Your task to perform on an android device: open a bookmark in the chrome app Image 0: 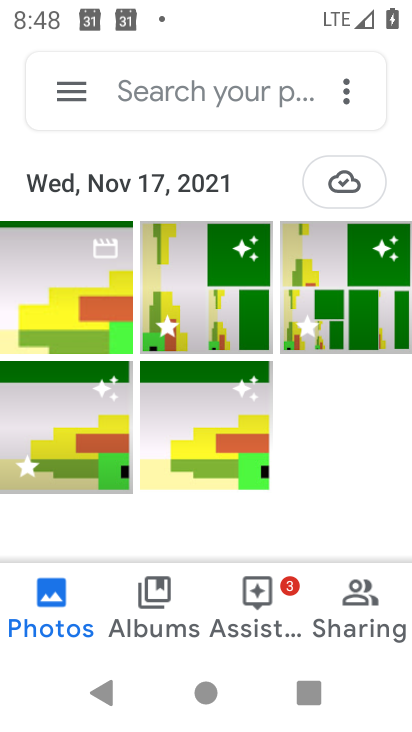
Step 0: press home button
Your task to perform on an android device: open a bookmark in the chrome app Image 1: 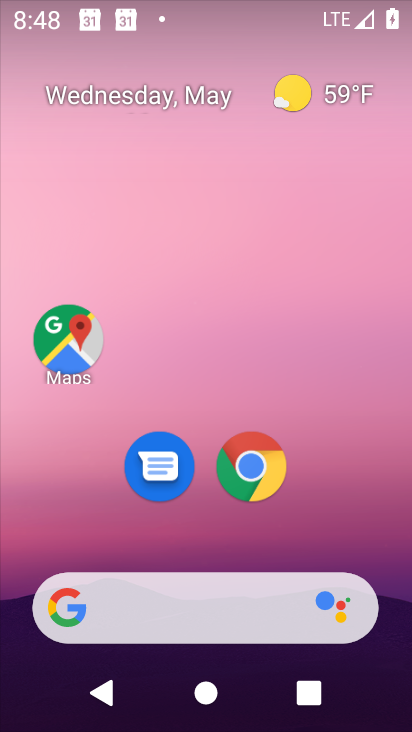
Step 1: drag from (312, 514) to (314, 258)
Your task to perform on an android device: open a bookmark in the chrome app Image 2: 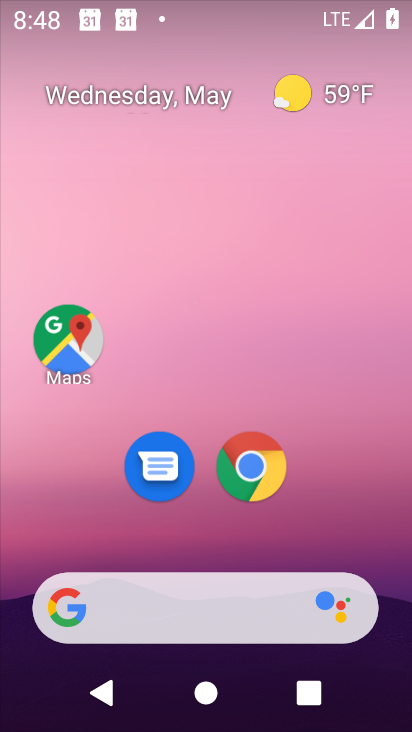
Step 2: click (253, 460)
Your task to perform on an android device: open a bookmark in the chrome app Image 3: 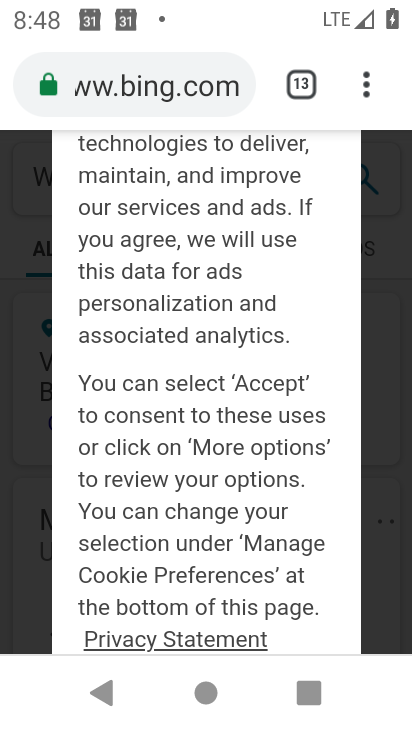
Step 3: click (346, 78)
Your task to perform on an android device: open a bookmark in the chrome app Image 4: 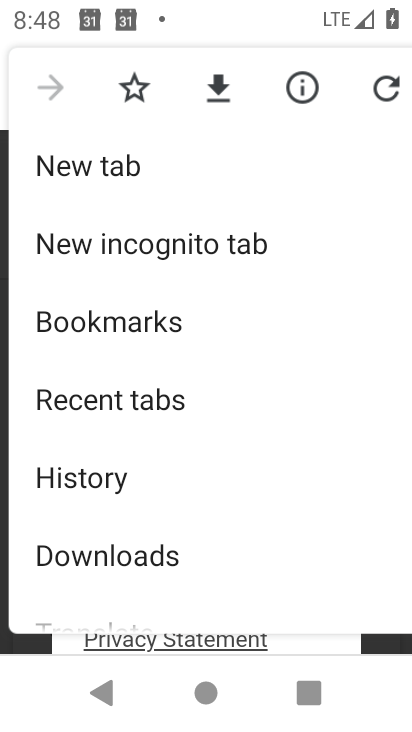
Step 4: click (79, 312)
Your task to perform on an android device: open a bookmark in the chrome app Image 5: 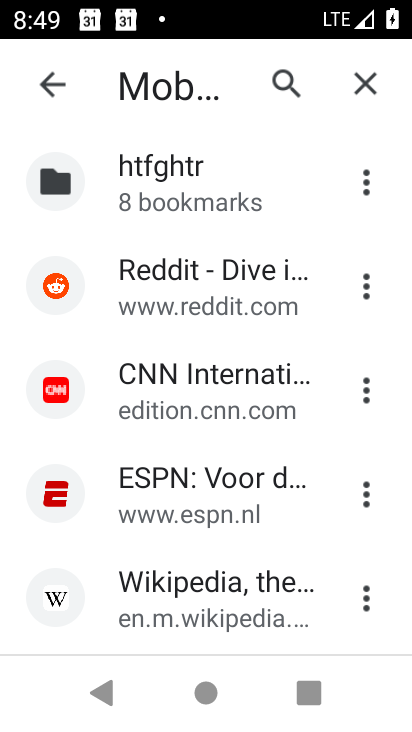
Step 5: task complete